Your task to perform on an android device: open wifi settings Image 0: 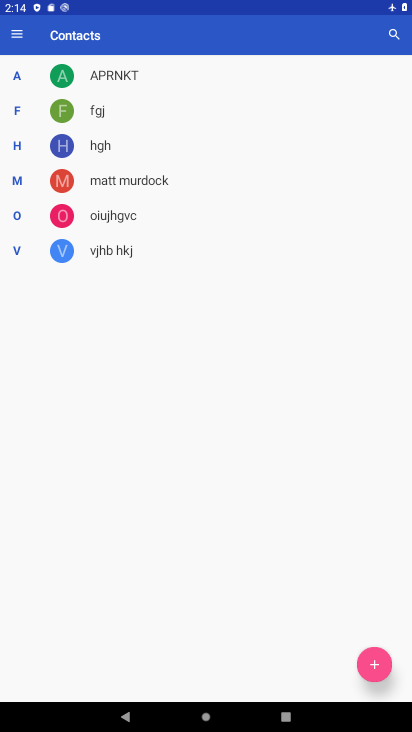
Step 0: press home button
Your task to perform on an android device: open wifi settings Image 1: 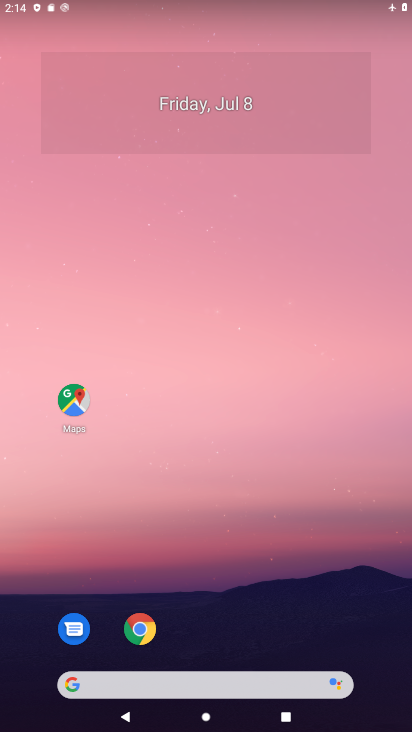
Step 1: drag from (43, 686) to (321, 35)
Your task to perform on an android device: open wifi settings Image 2: 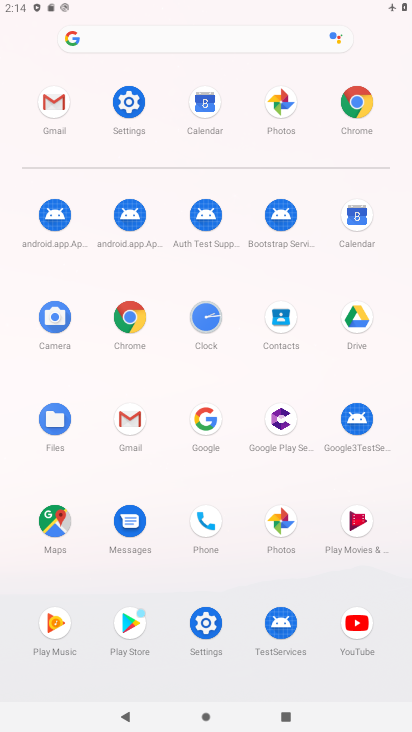
Step 2: click (209, 643)
Your task to perform on an android device: open wifi settings Image 3: 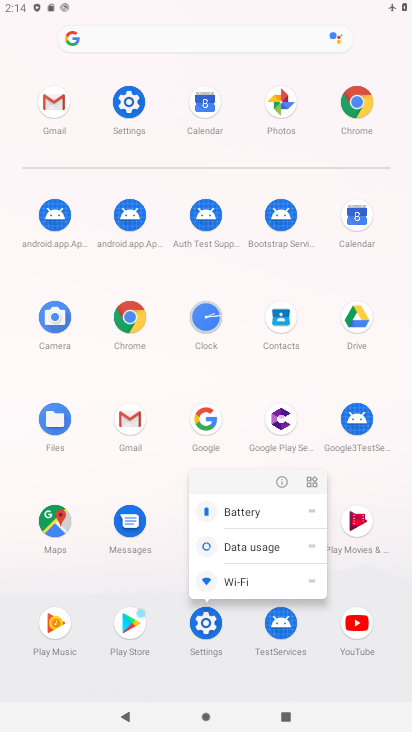
Step 3: click (220, 632)
Your task to perform on an android device: open wifi settings Image 4: 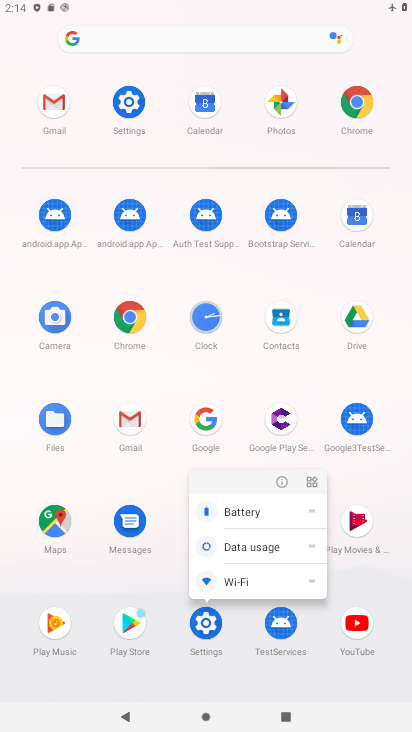
Step 4: click (206, 619)
Your task to perform on an android device: open wifi settings Image 5: 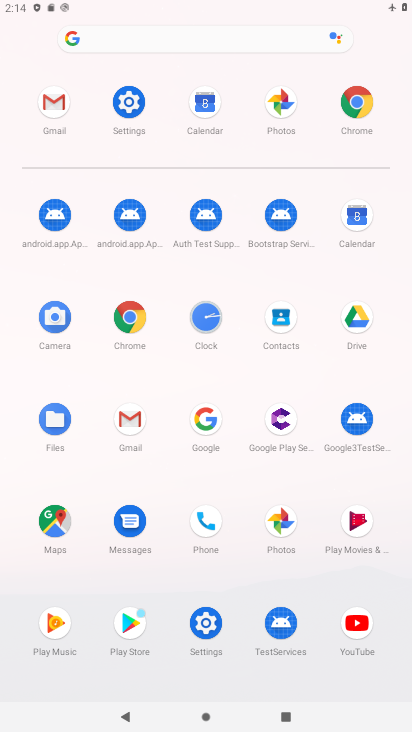
Step 5: click (196, 619)
Your task to perform on an android device: open wifi settings Image 6: 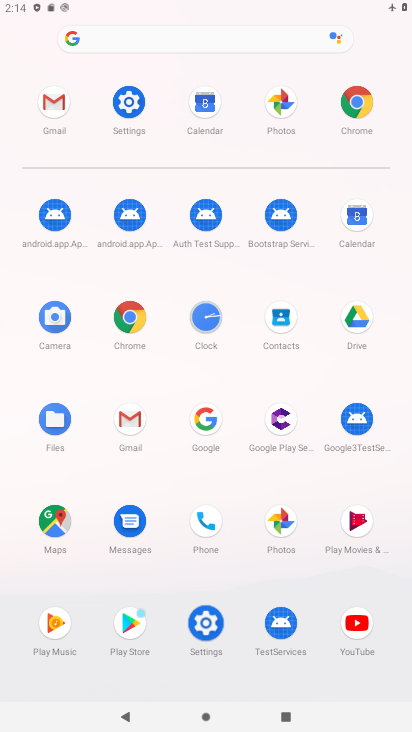
Step 6: click (196, 618)
Your task to perform on an android device: open wifi settings Image 7: 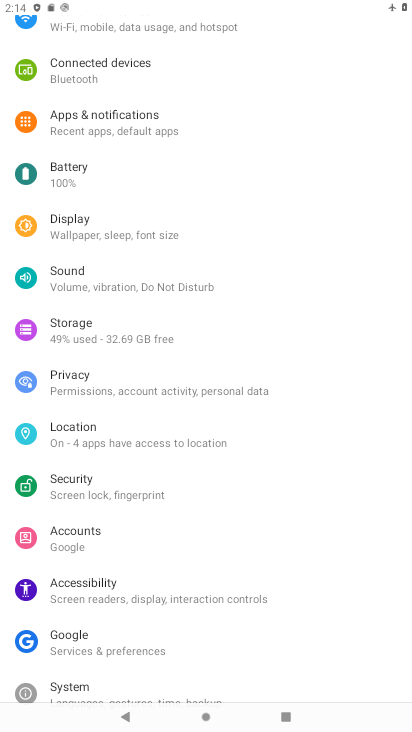
Step 7: task complete